Your task to perform on an android device: Open settings Image 0: 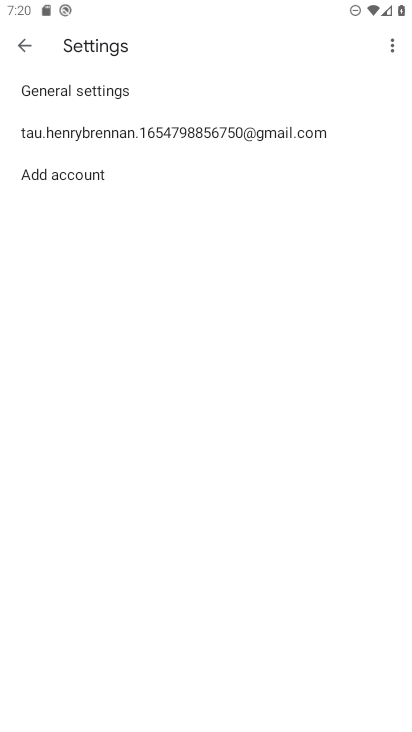
Step 0: press home button
Your task to perform on an android device: Open settings Image 1: 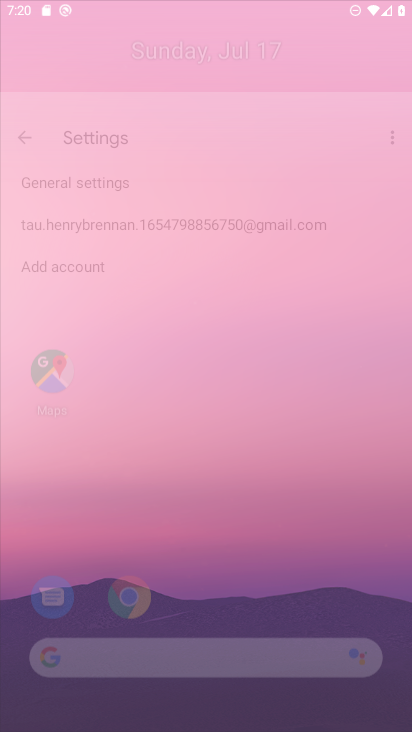
Step 1: drag from (378, 690) to (212, 46)
Your task to perform on an android device: Open settings Image 2: 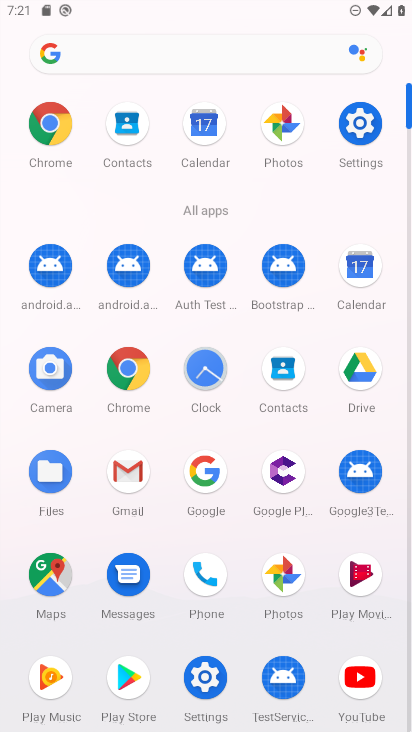
Step 2: click (196, 683)
Your task to perform on an android device: Open settings Image 3: 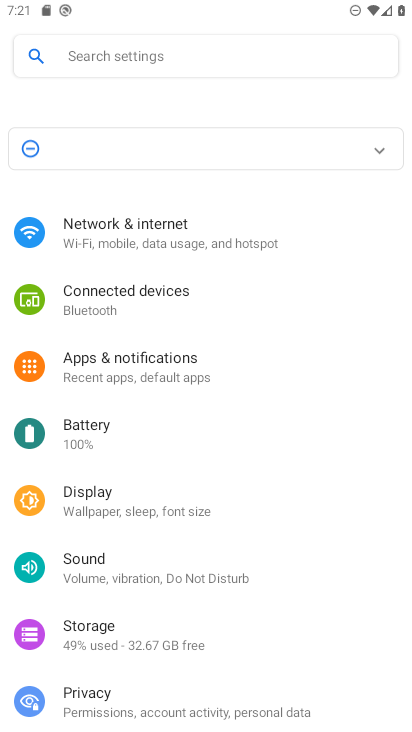
Step 3: task complete